Your task to perform on an android device: turn off priority inbox in the gmail app Image 0: 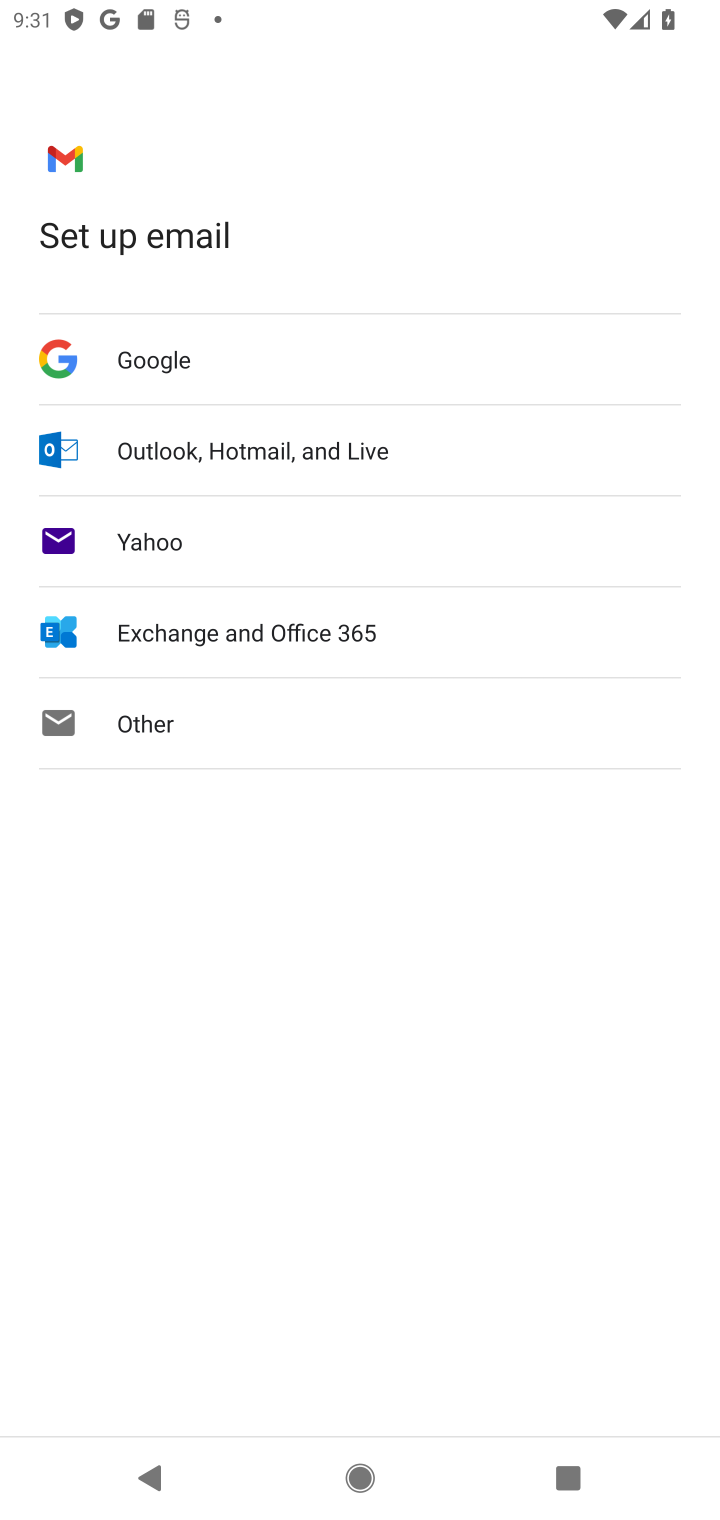
Step 0: press home button
Your task to perform on an android device: turn off priority inbox in the gmail app Image 1: 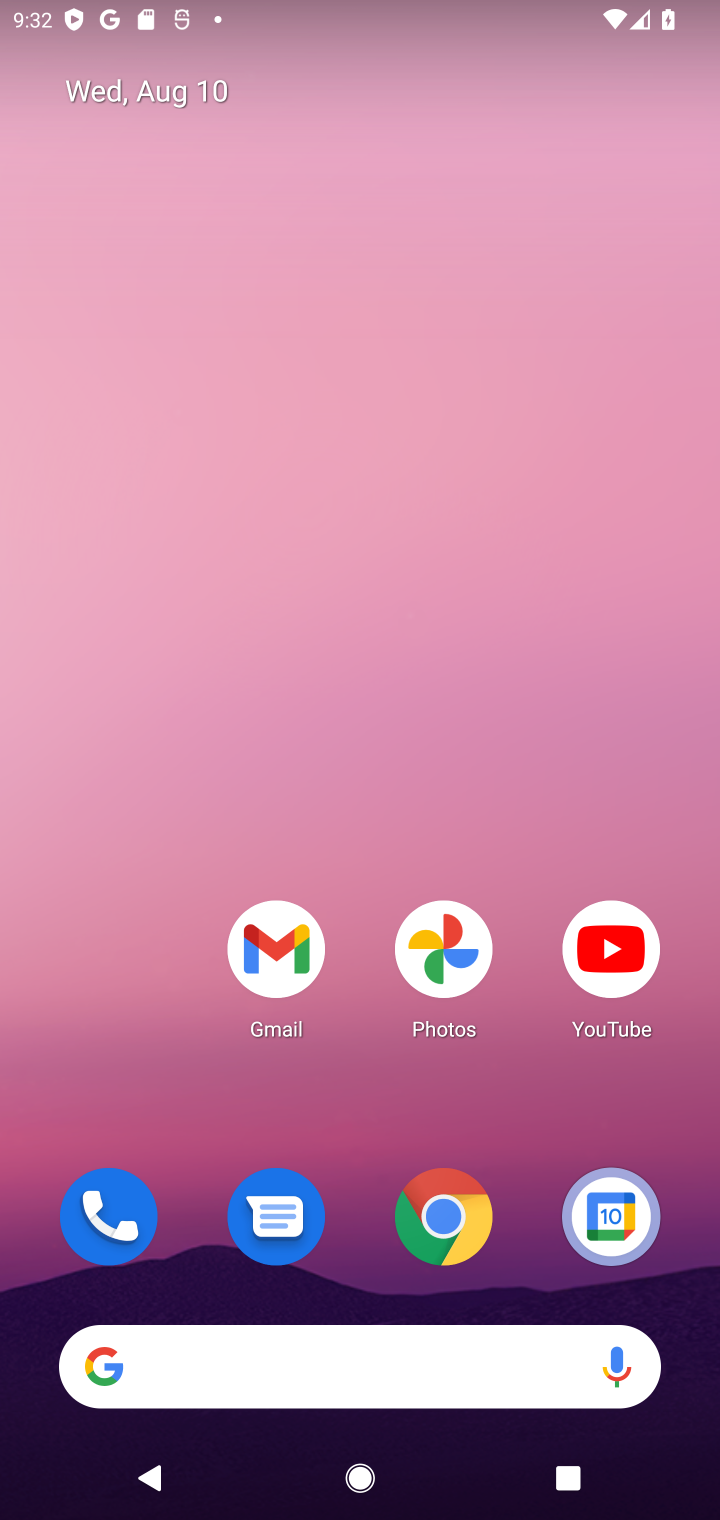
Step 1: drag from (160, 834) to (480, 267)
Your task to perform on an android device: turn off priority inbox in the gmail app Image 2: 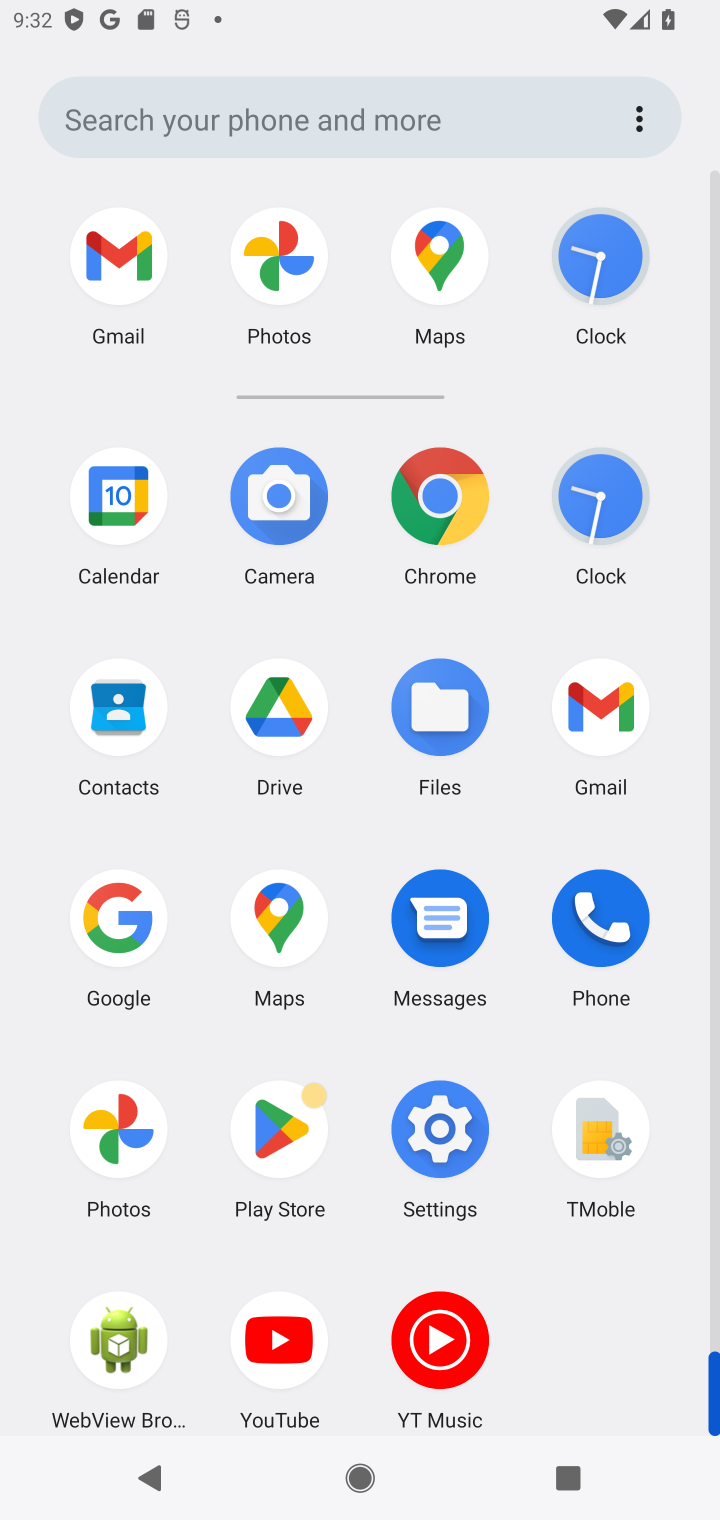
Step 2: click (624, 697)
Your task to perform on an android device: turn off priority inbox in the gmail app Image 3: 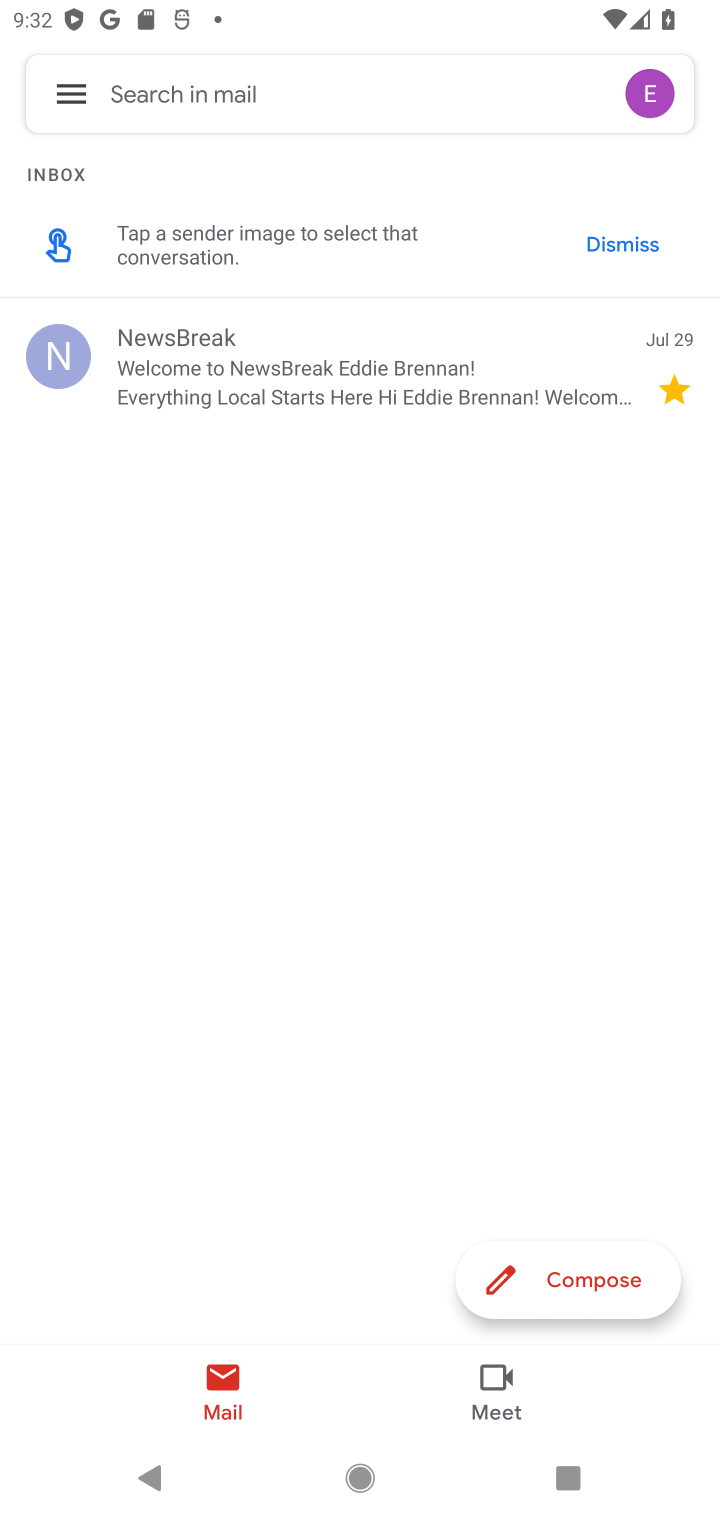
Step 3: click (60, 98)
Your task to perform on an android device: turn off priority inbox in the gmail app Image 4: 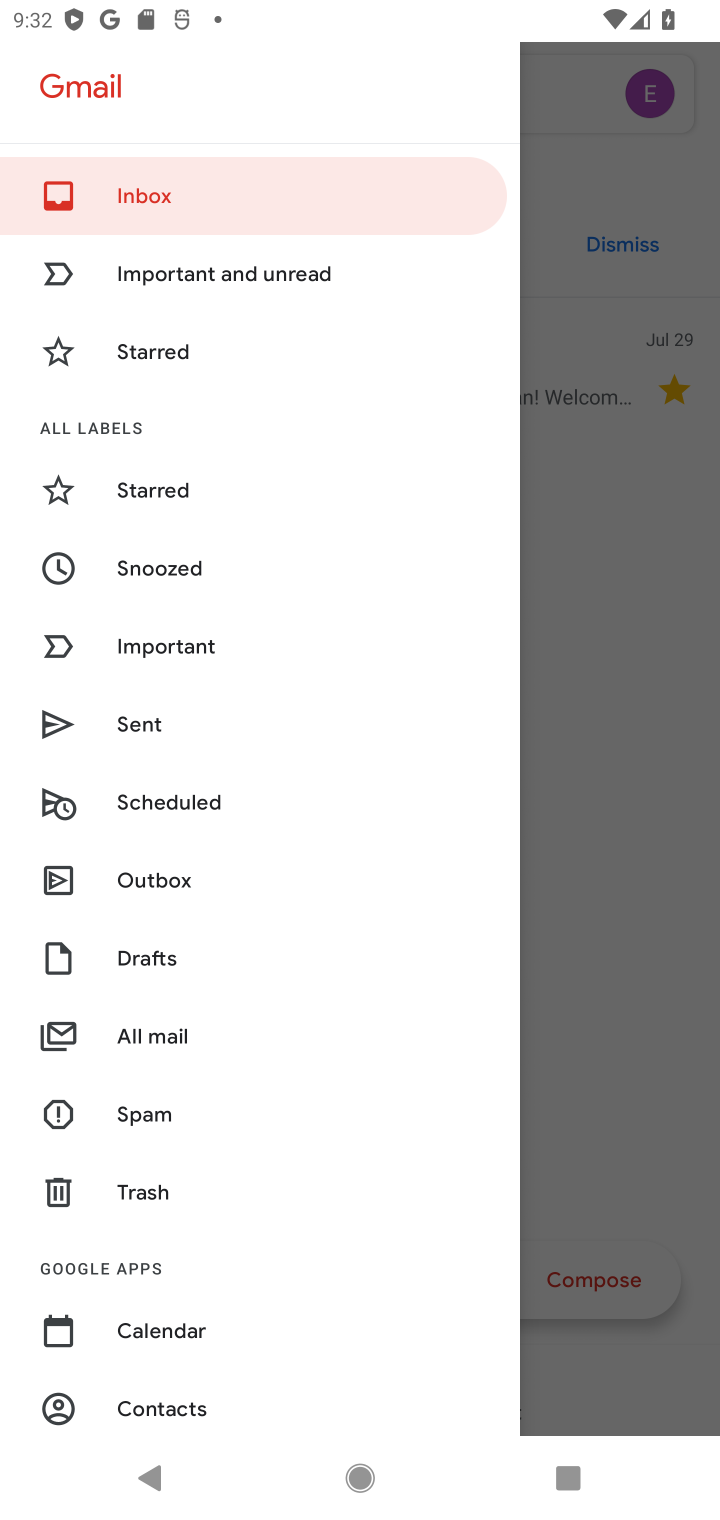
Step 4: drag from (7, 1290) to (534, 236)
Your task to perform on an android device: turn off priority inbox in the gmail app Image 5: 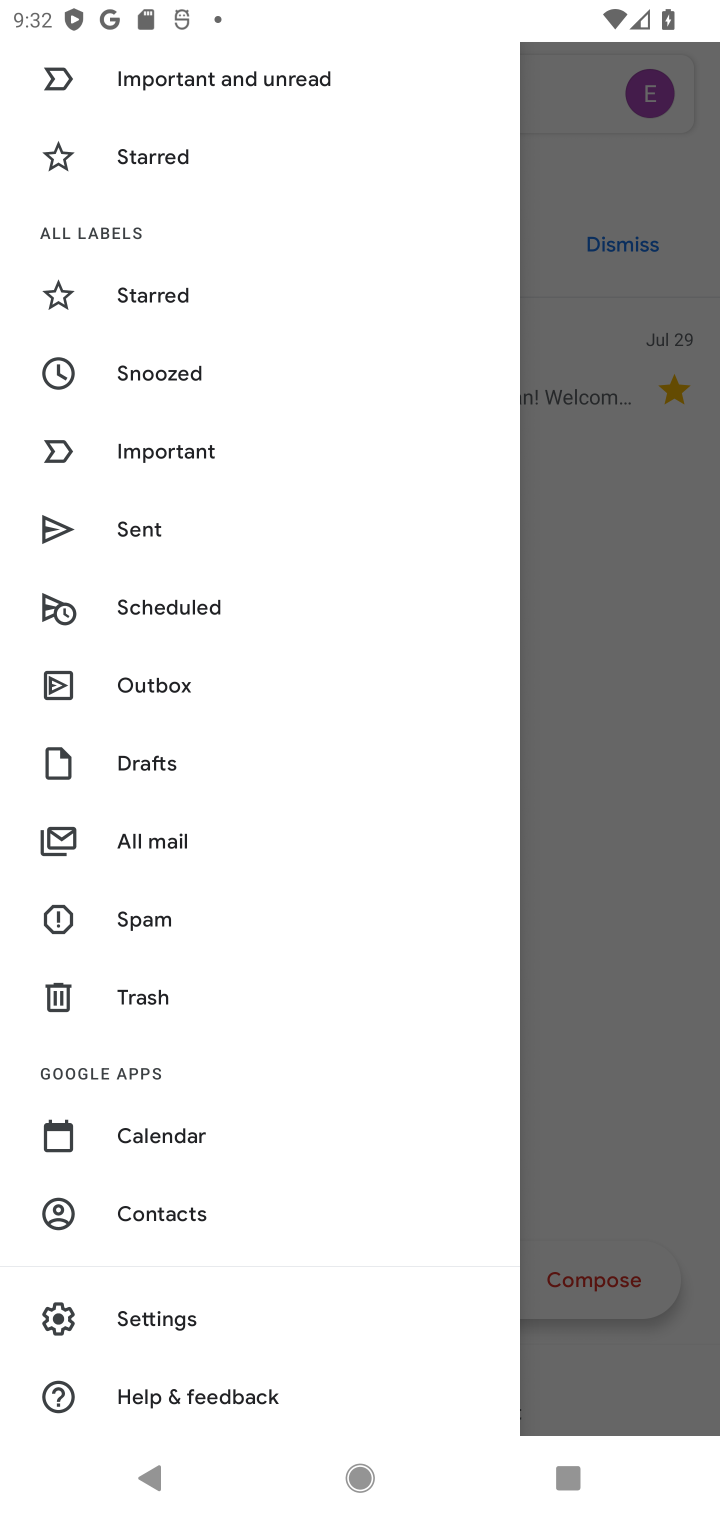
Step 5: click (189, 1302)
Your task to perform on an android device: turn off priority inbox in the gmail app Image 6: 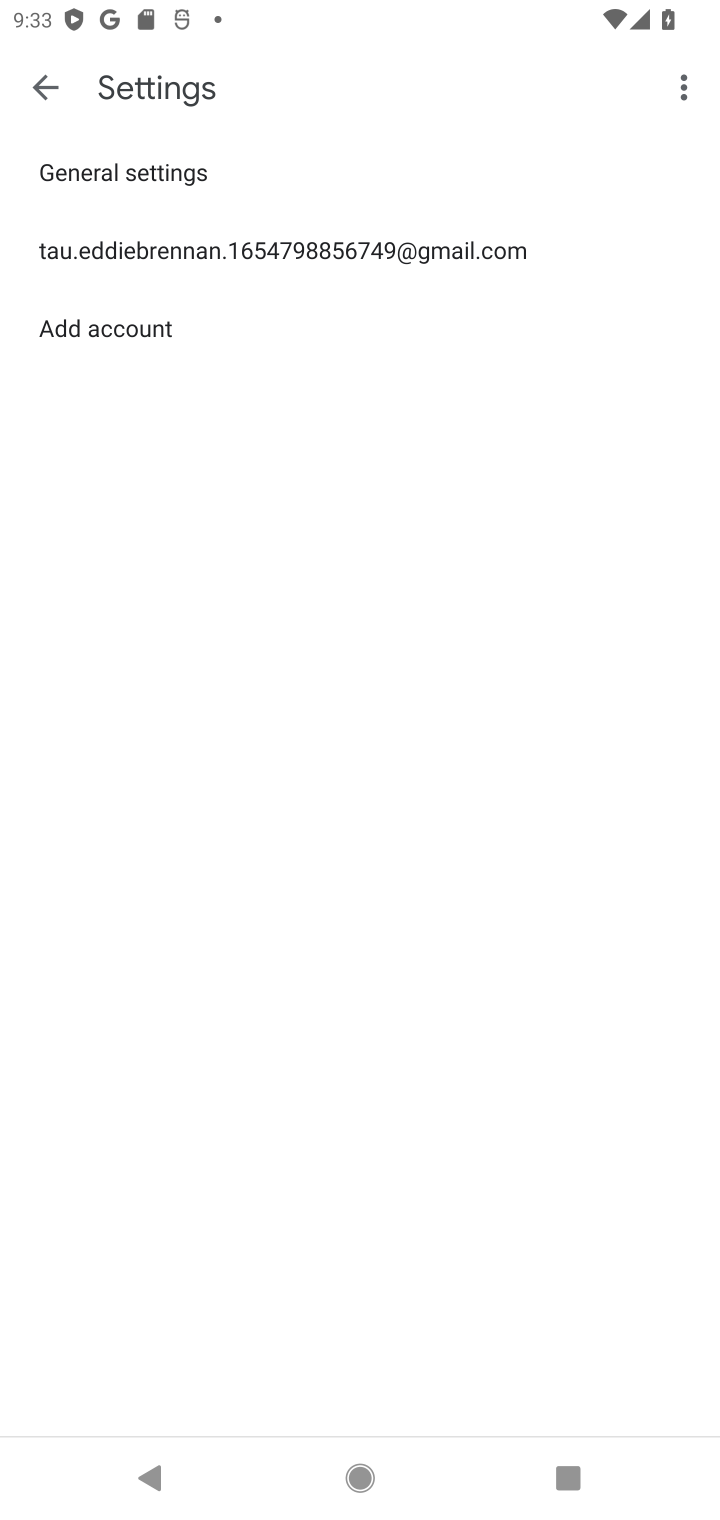
Step 6: click (388, 245)
Your task to perform on an android device: turn off priority inbox in the gmail app Image 7: 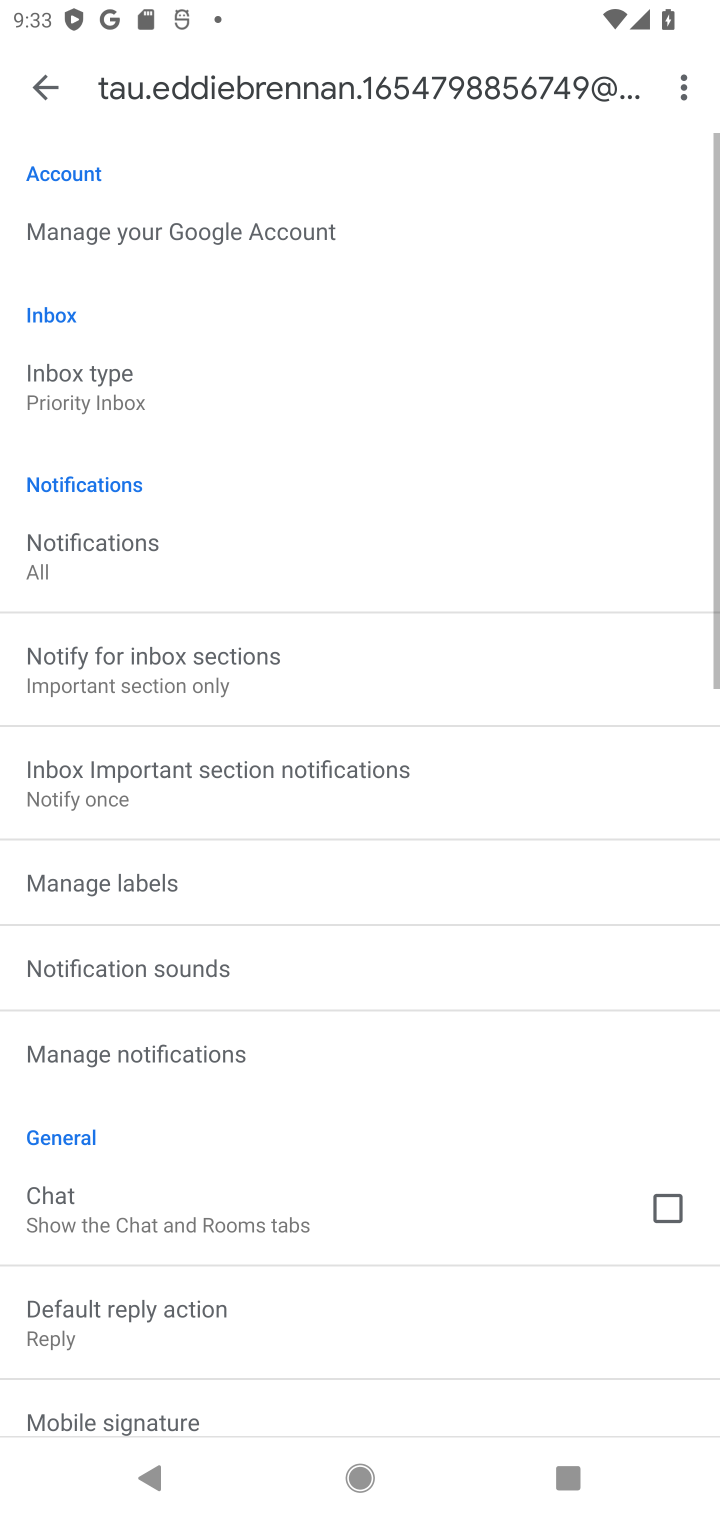
Step 7: click (62, 370)
Your task to perform on an android device: turn off priority inbox in the gmail app Image 8: 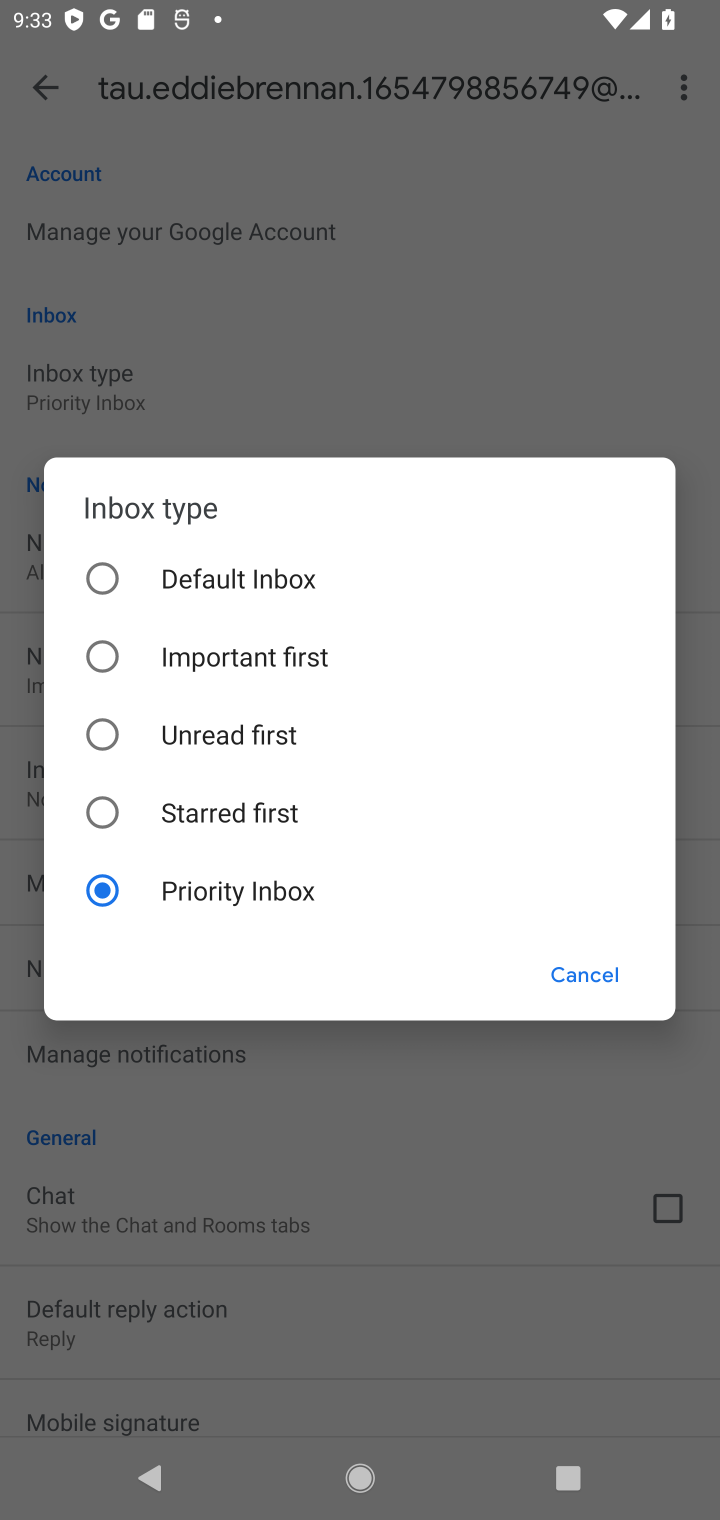
Step 8: click (197, 804)
Your task to perform on an android device: turn off priority inbox in the gmail app Image 9: 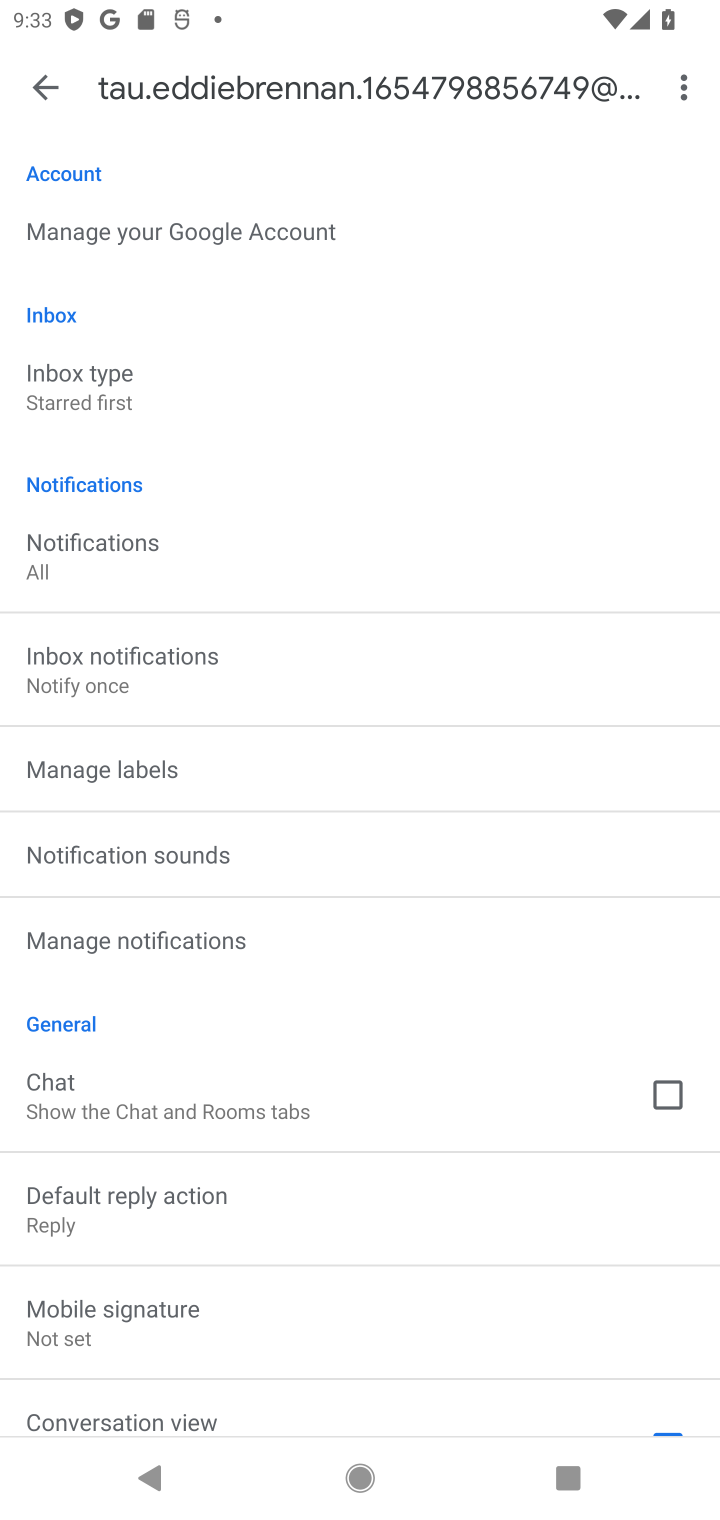
Step 9: task complete